Your task to perform on an android device: stop showing notifications on the lock screen Image 0: 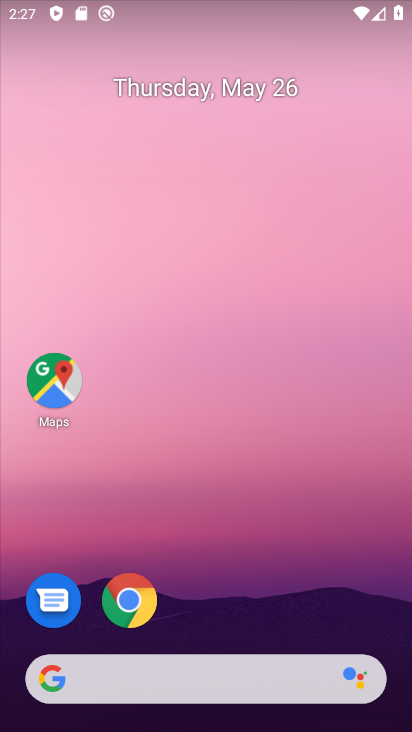
Step 0: drag from (262, 624) to (258, 163)
Your task to perform on an android device: stop showing notifications on the lock screen Image 1: 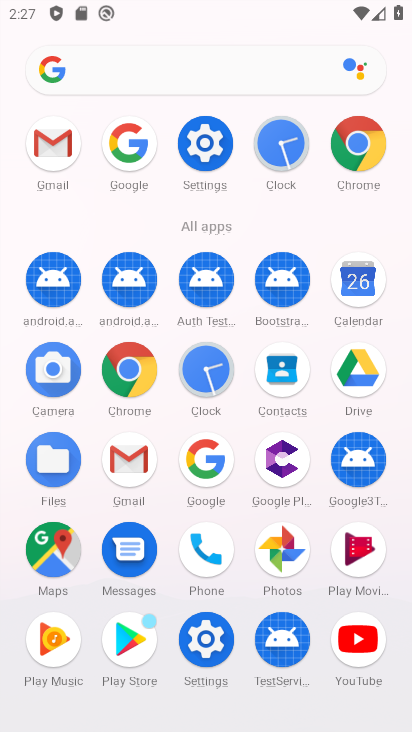
Step 1: click (192, 142)
Your task to perform on an android device: stop showing notifications on the lock screen Image 2: 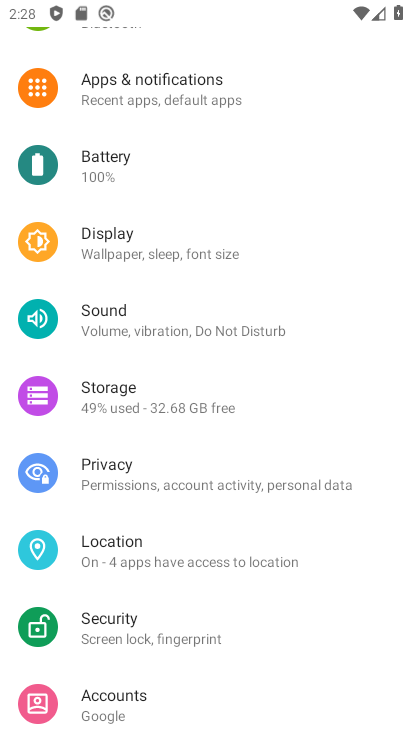
Step 2: click (199, 72)
Your task to perform on an android device: stop showing notifications on the lock screen Image 3: 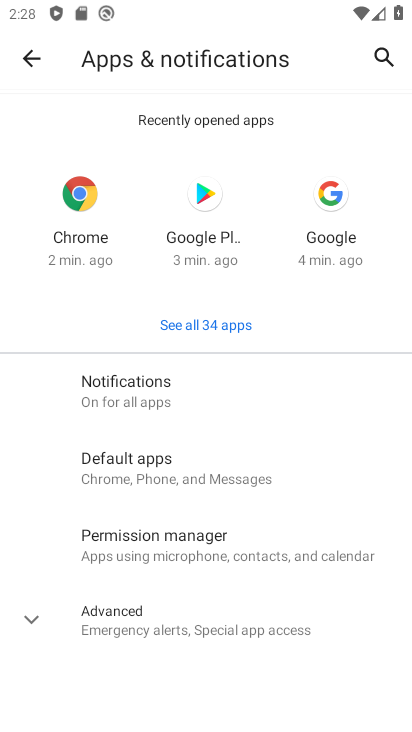
Step 3: click (170, 410)
Your task to perform on an android device: stop showing notifications on the lock screen Image 4: 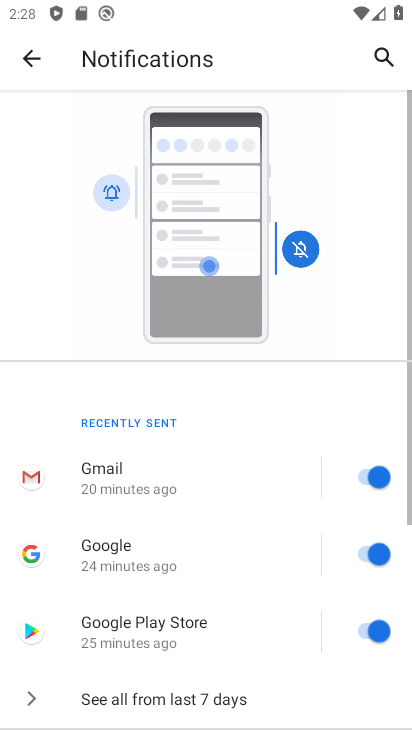
Step 4: drag from (191, 557) to (197, 164)
Your task to perform on an android device: stop showing notifications on the lock screen Image 5: 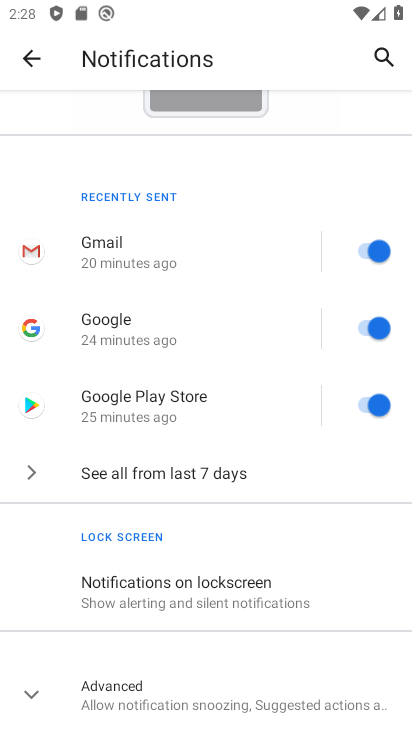
Step 5: click (221, 593)
Your task to perform on an android device: stop showing notifications on the lock screen Image 6: 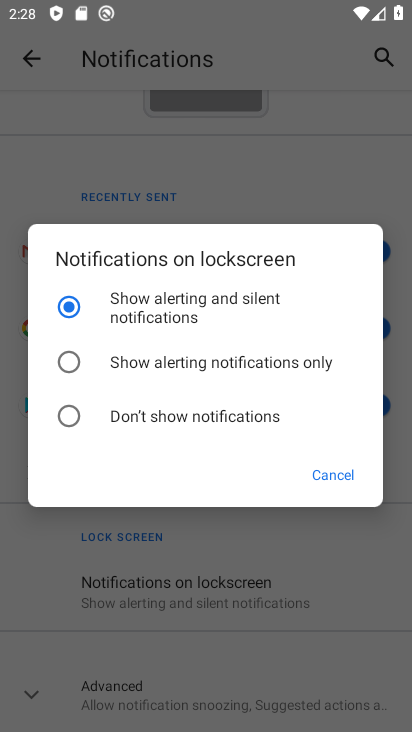
Step 6: click (200, 412)
Your task to perform on an android device: stop showing notifications on the lock screen Image 7: 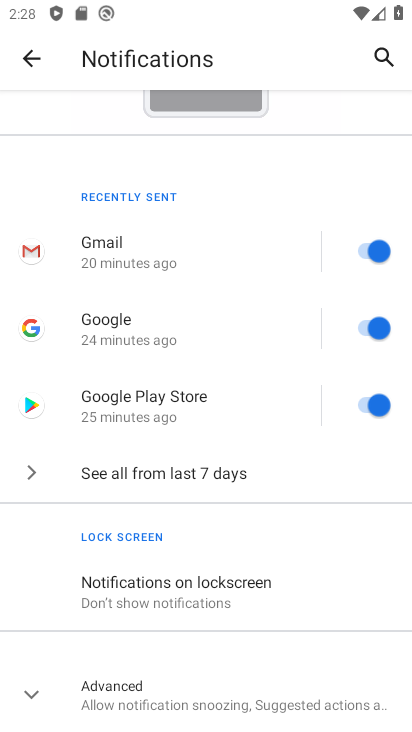
Step 7: task complete